Your task to perform on an android device: When is my next appointment? Image 0: 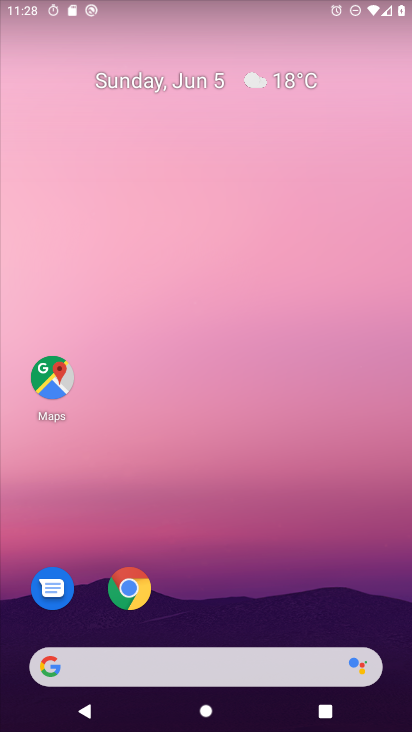
Step 0: drag from (304, 576) to (302, 182)
Your task to perform on an android device: When is my next appointment? Image 1: 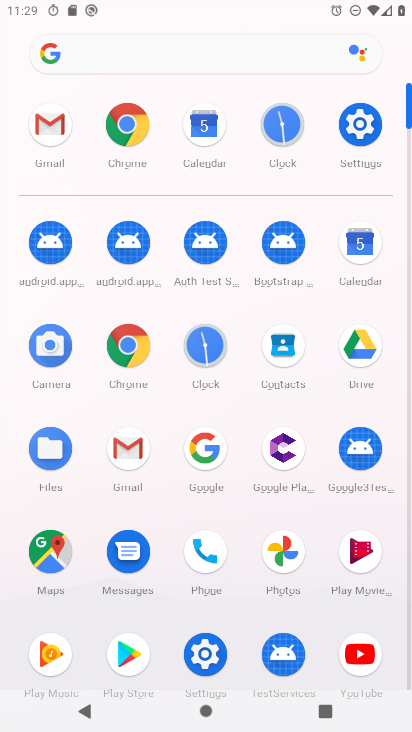
Step 1: click (356, 259)
Your task to perform on an android device: When is my next appointment? Image 2: 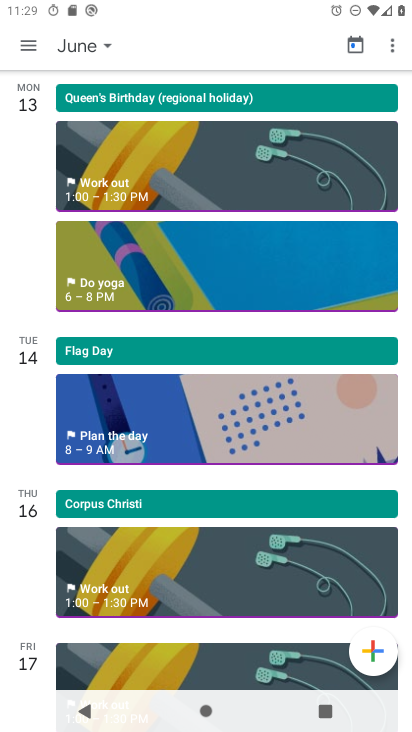
Step 2: click (292, 491)
Your task to perform on an android device: When is my next appointment? Image 3: 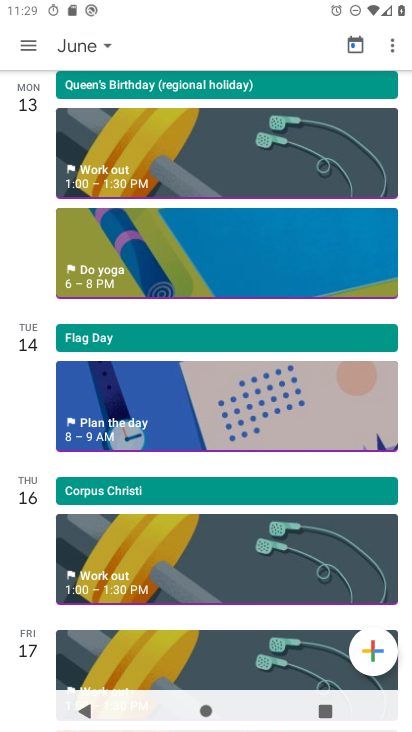
Step 3: click (102, 43)
Your task to perform on an android device: When is my next appointment? Image 4: 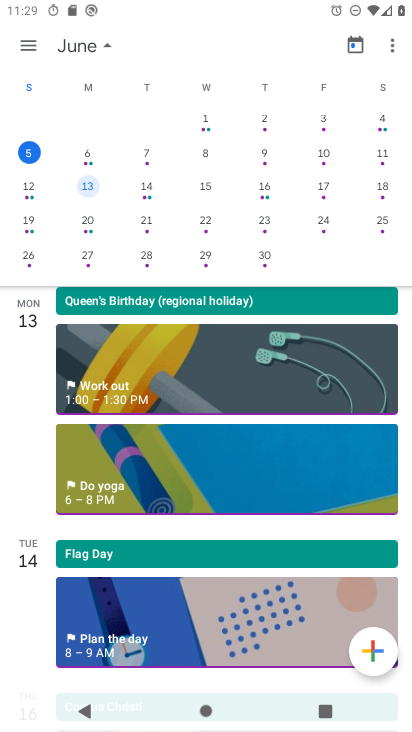
Step 4: click (145, 154)
Your task to perform on an android device: When is my next appointment? Image 5: 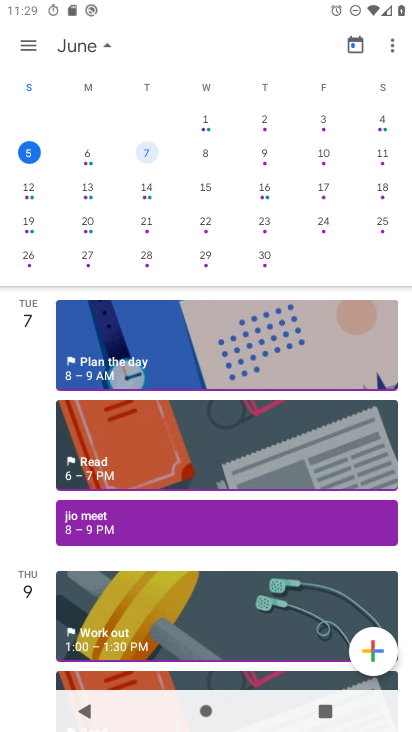
Step 5: click (204, 337)
Your task to perform on an android device: When is my next appointment? Image 6: 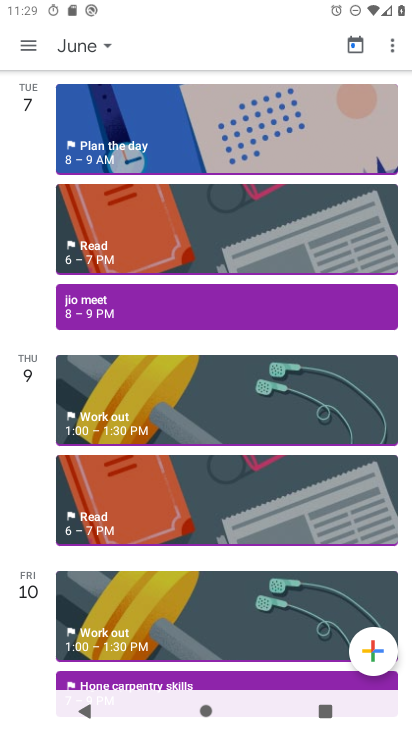
Step 6: drag from (226, 477) to (247, 328)
Your task to perform on an android device: When is my next appointment? Image 7: 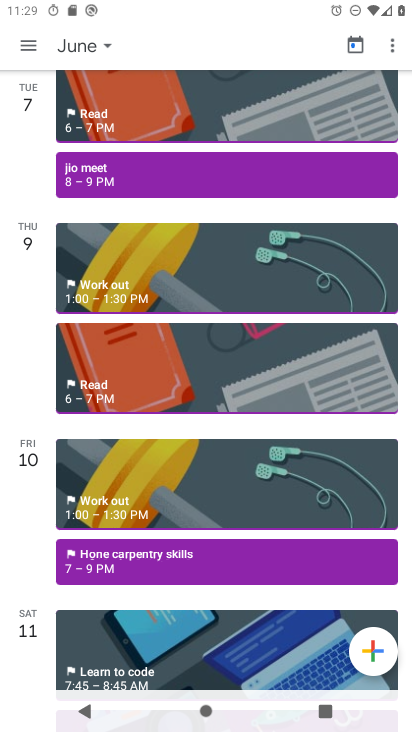
Step 7: click (254, 104)
Your task to perform on an android device: When is my next appointment? Image 8: 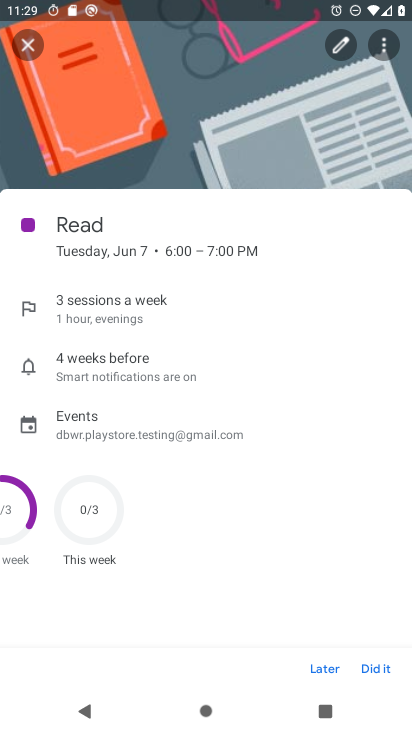
Step 8: task complete